Your task to perform on an android device: Open accessibility settings Image 0: 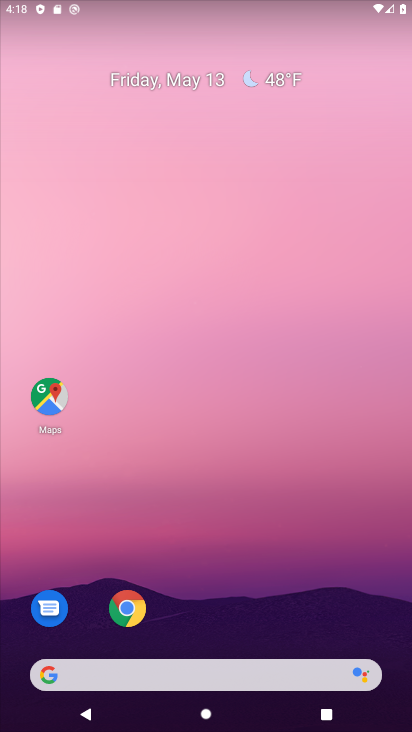
Step 0: drag from (225, 717) to (199, 189)
Your task to perform on an android device: Open accessibility settings Image 1: 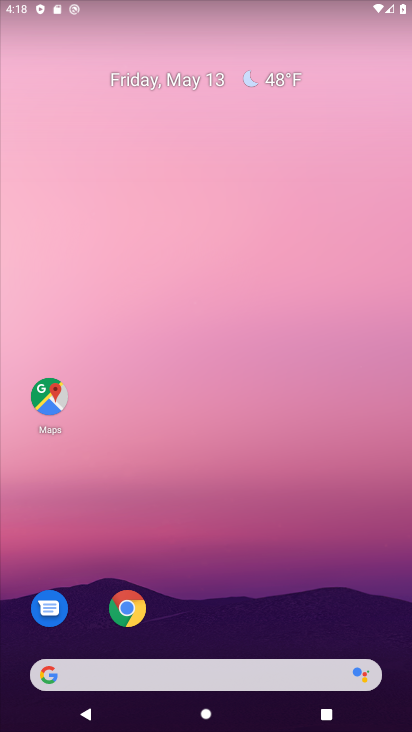
Step 1: drag from (226, 715) to (232, 192)
Your task to perform on an android device: Open accessibility settings Image 2: 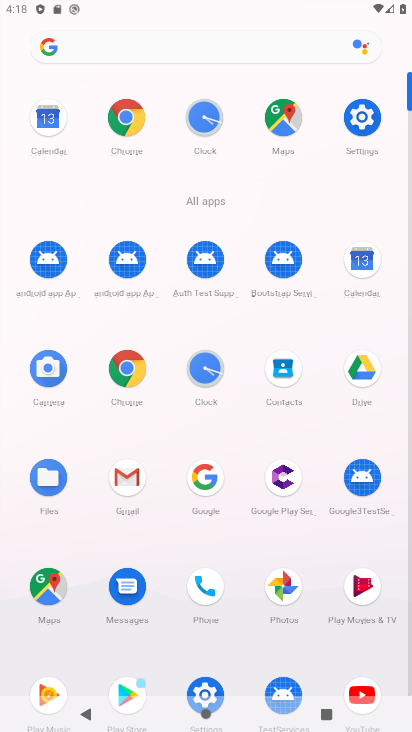
Step 2: click (364, 118)
Your task to perform on an android device: Open accessibility settings Image 3: 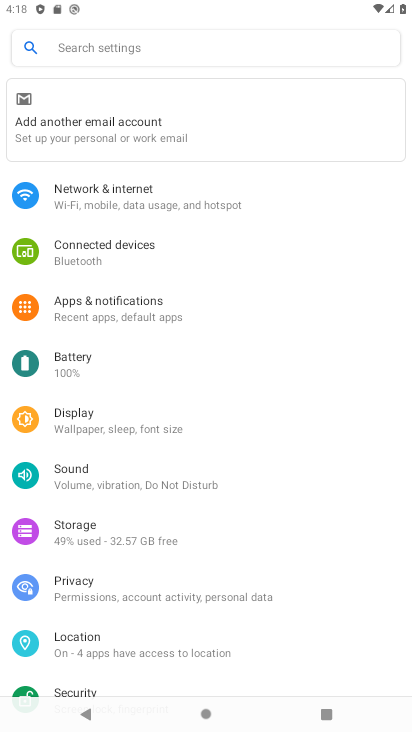
Step 3: drag from (111, 640) to (114, 136)
Your task to perform on an android device: Open accessibility settings Image 4: 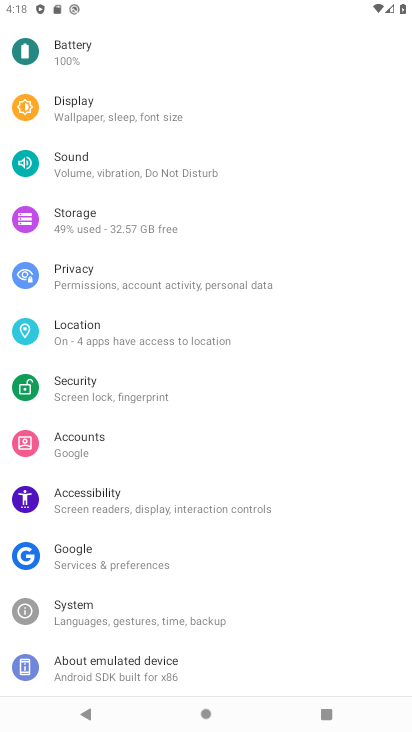
Step 4: click (63, 502)
Your task to perform on an android device: Open accessibility settings Image 5: 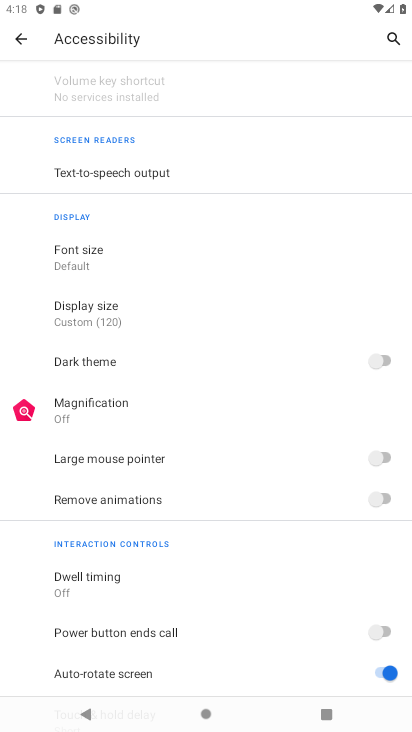
Step 5: task complete